Your task to perform on an android device: toggle sleep mode Image 0: 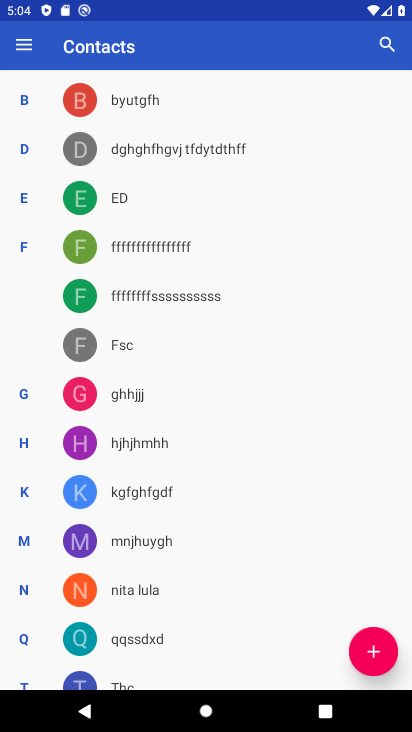
Step 0: press home button
Your task to perform on an android device: toggle sleep mode Image 1: 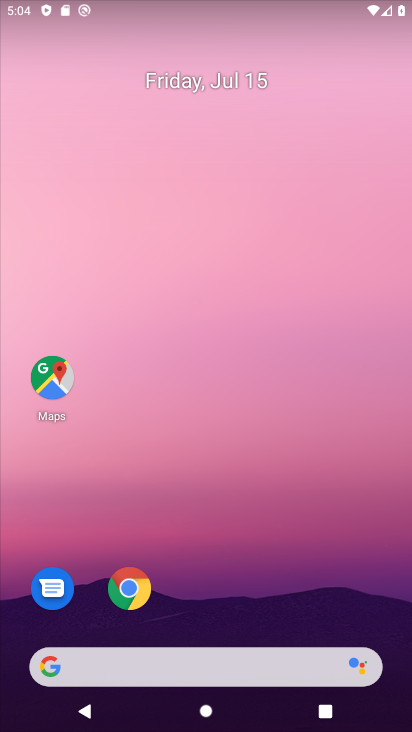
Step 1: drag from (251, 655) to (244, 230)
Your task to perform on an android device: toggle sleep mode Image 2: 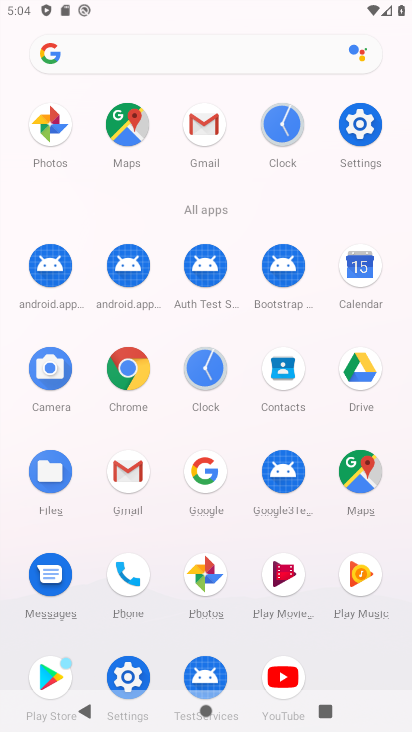
Step 2: click (364, 124)
Your task to perform on an android device: toggle sleep mode Image 3: 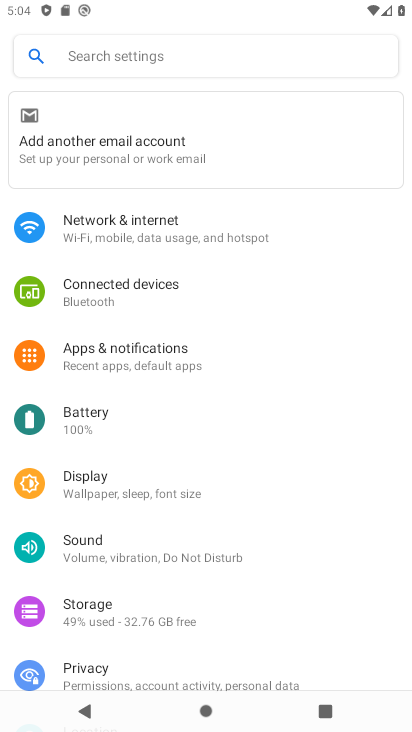
Step 3: click (118, 478)
Your task to perform on an android device: toggle sleep mode Image 4: 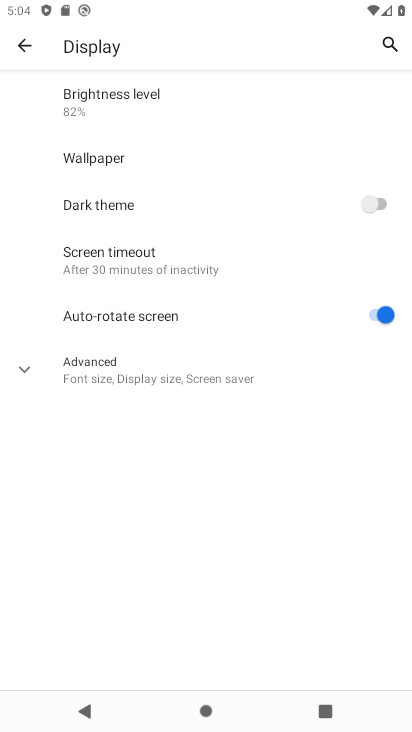
Step 4: task complete